Your task to perform on an android device: stop showing notifications on the lock screen Image 0: 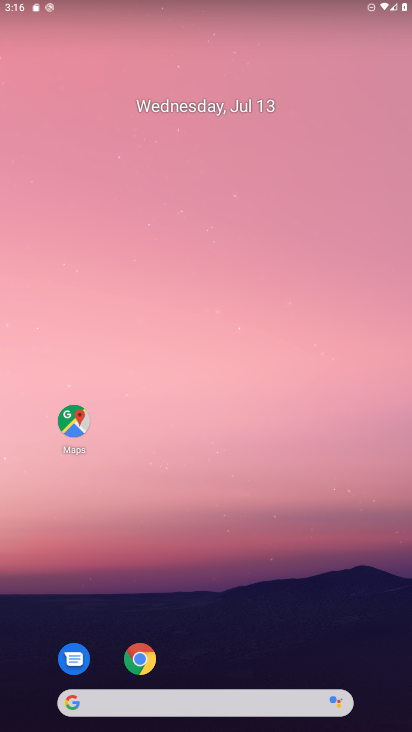
Step 0: drag from (370, 639) to (291, 130)
Your task to perform on an android device: stop showing notifications on the lock screen Image 1: 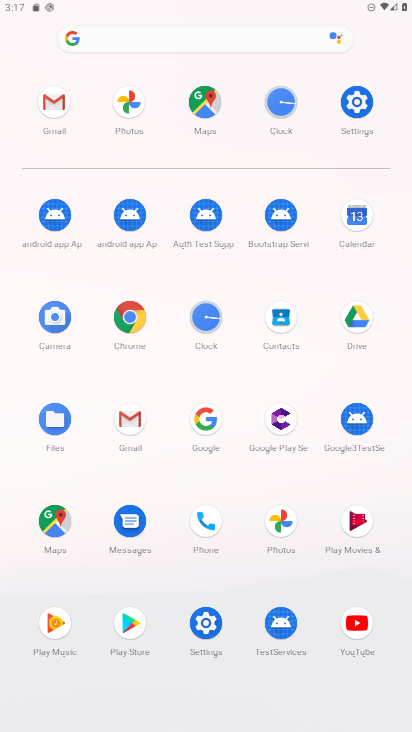
Step 1: click (206, 624)
Your task to perform on an android device: stop showing notifications on the lock screen Image 2: 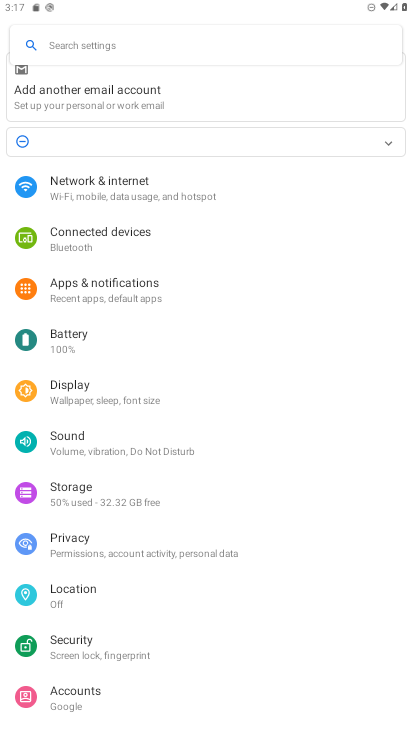
Step 2: click (80, 288)
Your task to perform on an android device: stop showing notifications on the lock screen Image 3: 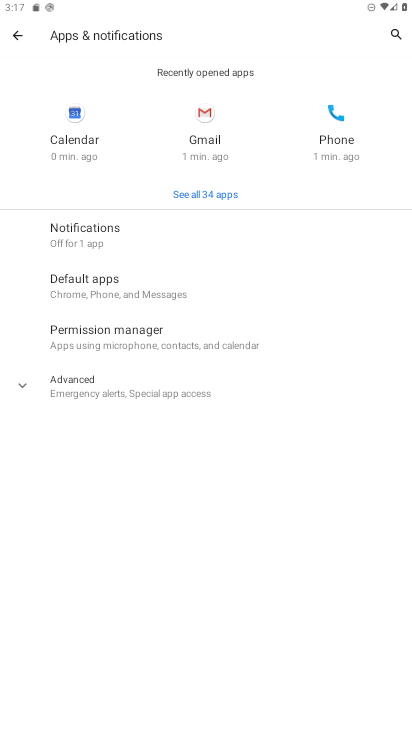
Step 3: click (73, 228)
Your task to perform on an android device: stop showing notifications on the lock screen Image 4: 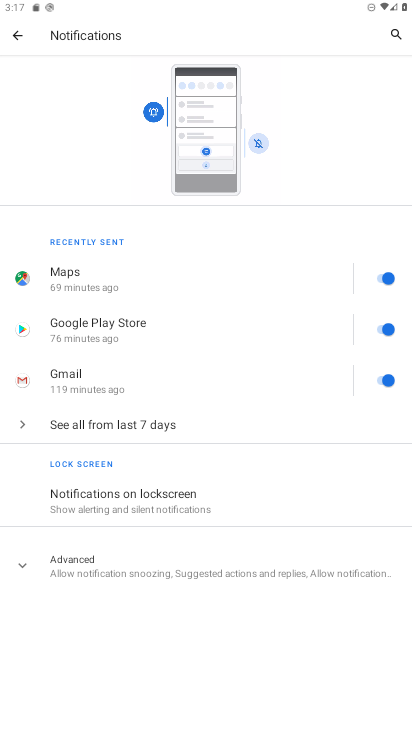
Step 4: click (117, 497)
Your task to perform on an android device: stop showing notifications on the lock screen Image 5: 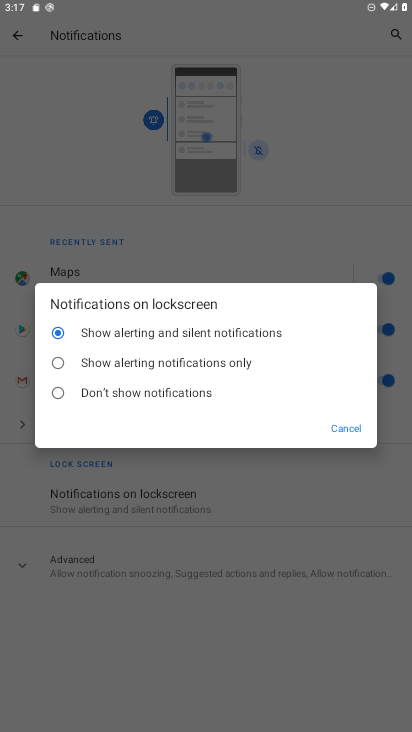
Step 5: click (55, 390)
Your task to perform on an android device: stop showing notifications on the lock screen Image 6: 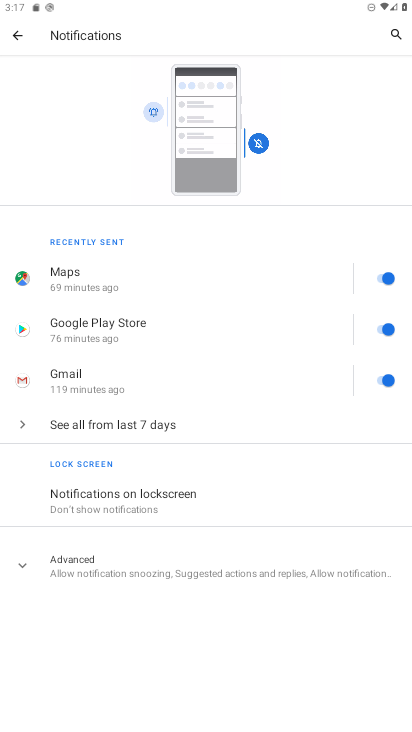
Step 6: task complete